Your task to perform on an android device: Open eBay Image 0: 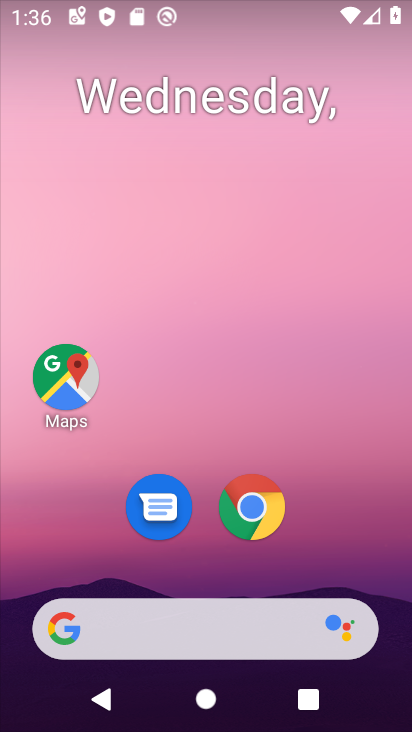
Step 0: drag from (388, 561) to (353, 172)
Your task to perform on an android device: Open eBay Image 1: 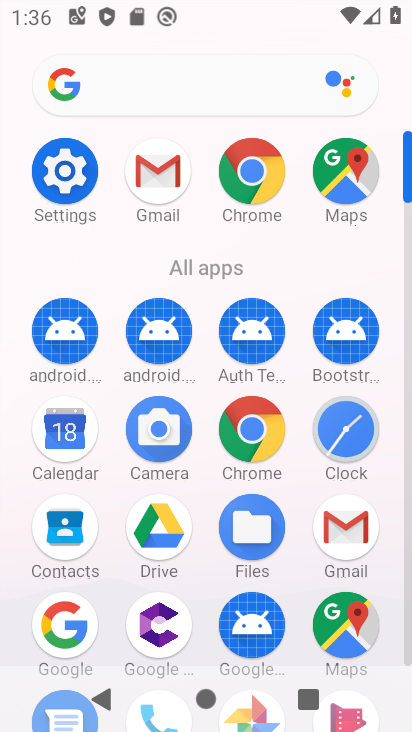
Step 1: click (266, 180)
Your task to perform on an android device: Open eBay Image 2: 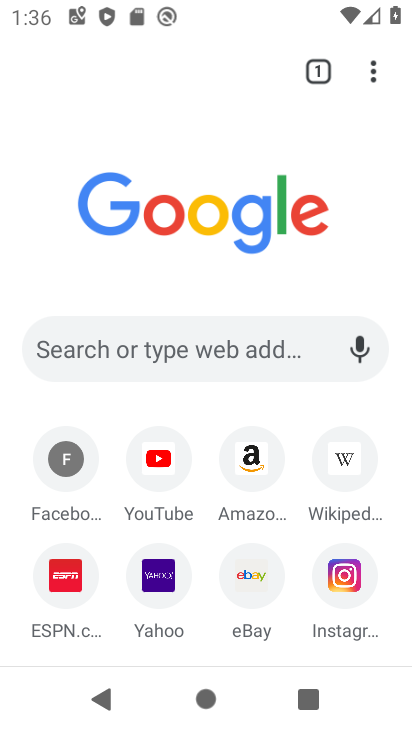
Step 2: click (142, 363)
Your task to perform on an android device: Open eBay Image 3: 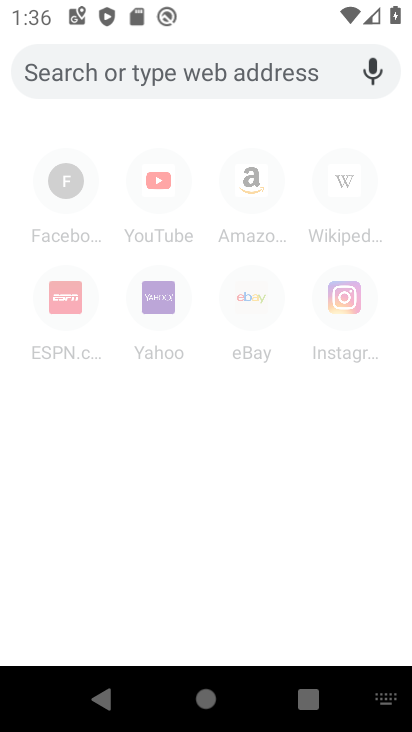
Step 3: type "ebay"
Your task to perform on an android device: Open eBay Image 4: 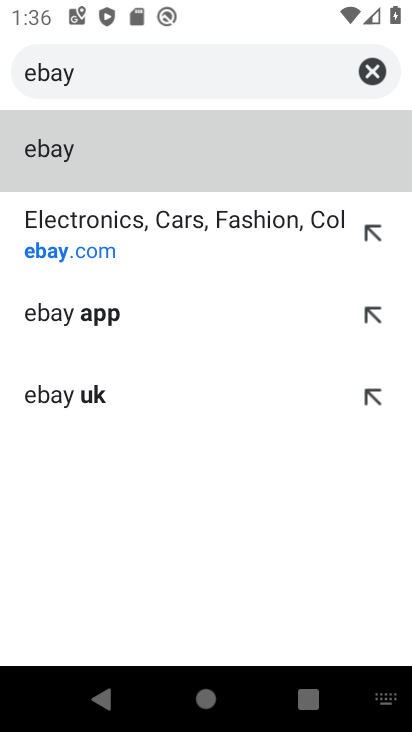
Step 4: click (76, 149)
Your task to perform on an android device: Open eBay Image 5: 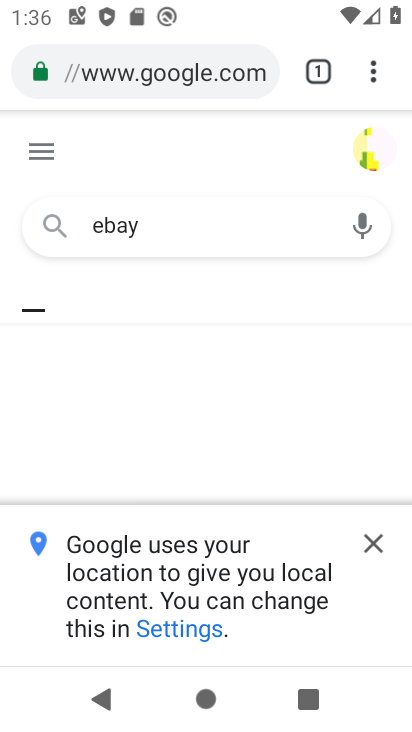
Step 5: click (382, 547)
Your task to perform on an android device: Open eBay Image 6: 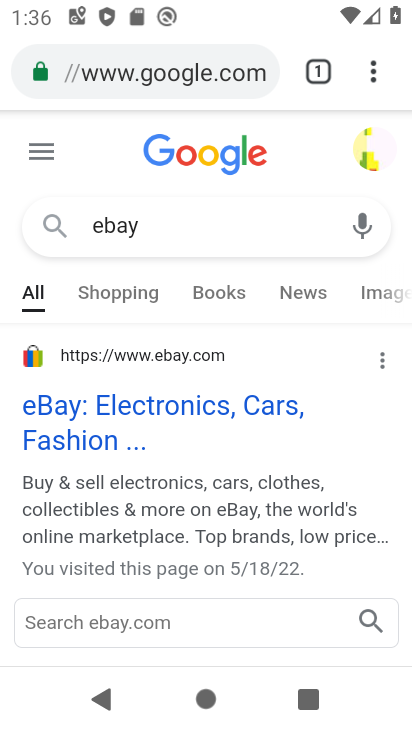
Step 6: click (190, 420)
Your task to perform on an android device: Open eBay Image 7: 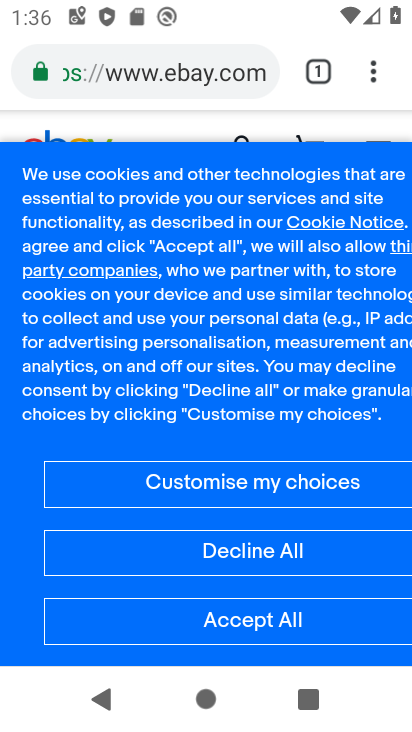
Step 7: task complete